Your task to perform on an android device: Open the stopwatch Image 0: 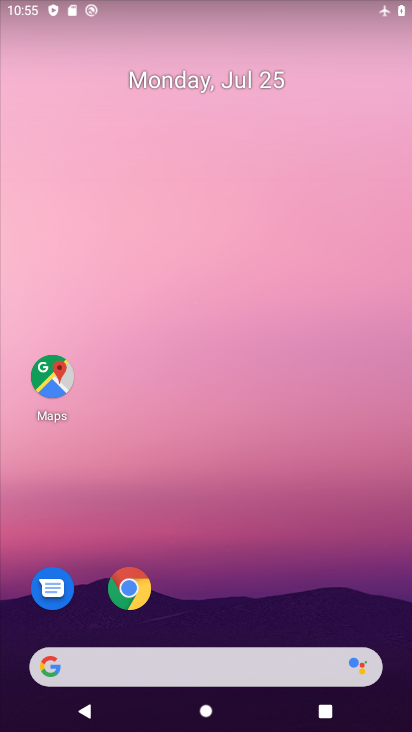
Step 0: drag from (202, 498) to (196, 276)
Your task to perform on an android device: Open the stopwatch Image 1: 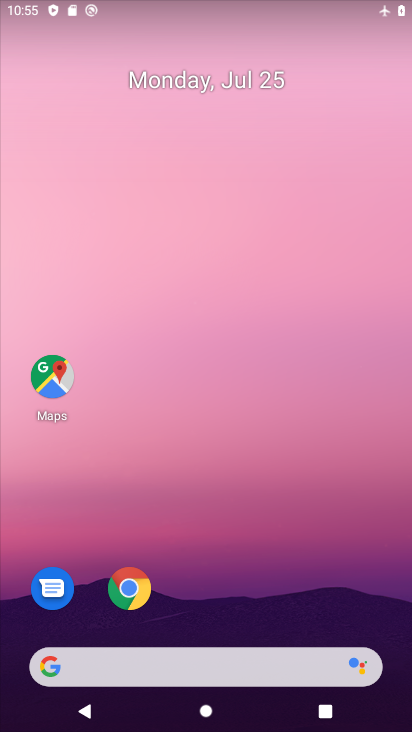
Step 1: drag from (189, 551) to (189, 309)
Your task to perform on an android device: Open the stopwatch Image 2: 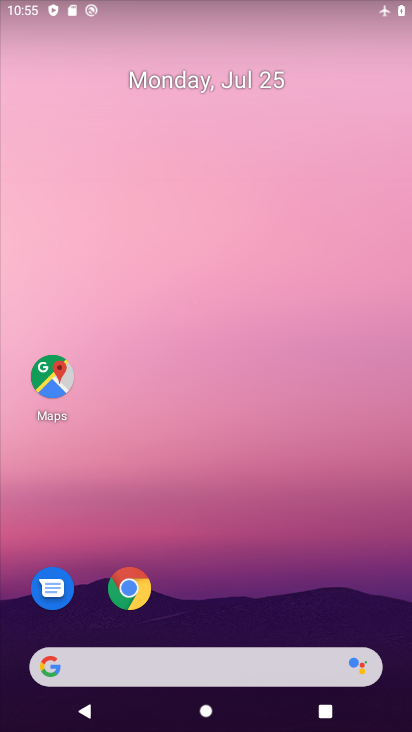
Step 2: drag from (185, 486) to (179, 74)
Your task to perform on an android device: Open the stopwatch Image 3: 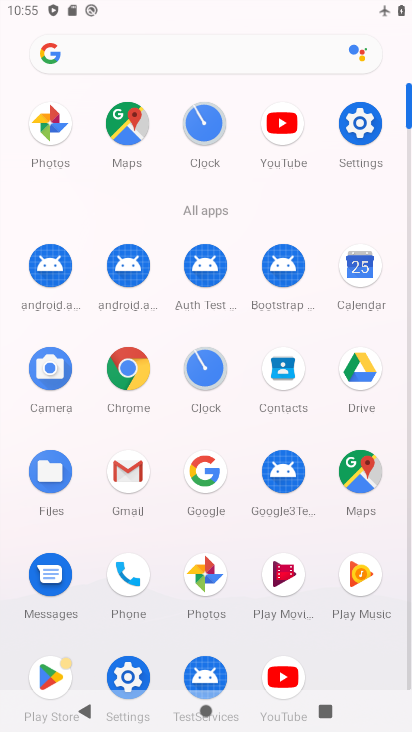
Step 3: click (213, 366)
Your task to perform on an android device: Open the stopwatch Image 4: 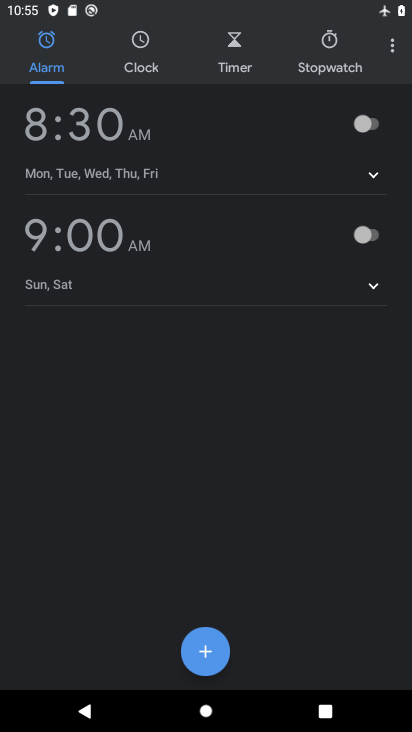
Step 4: click (329, 54)
Your task to perform on an android device: Open the stopwatch Image 5: 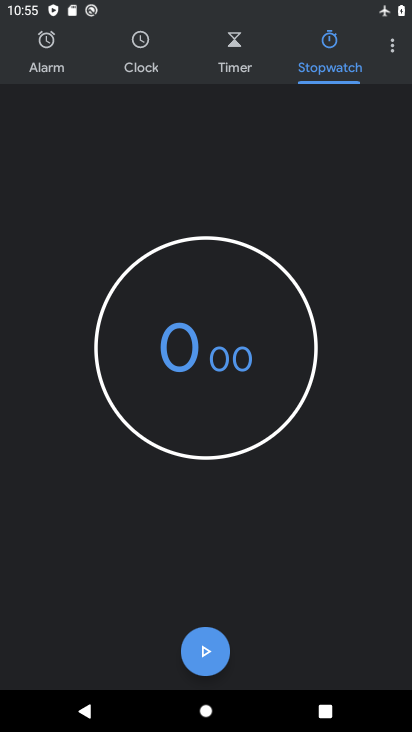
Step 5: task complete